Your task to perform on an android device: Open settings on Google Maps Image 0: 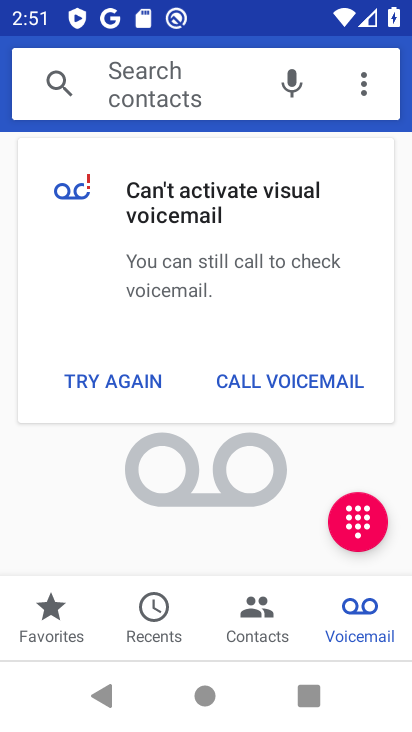
Step 0: press home button
Your task to perform on an android device: Open settings on Google Maps Image 1: 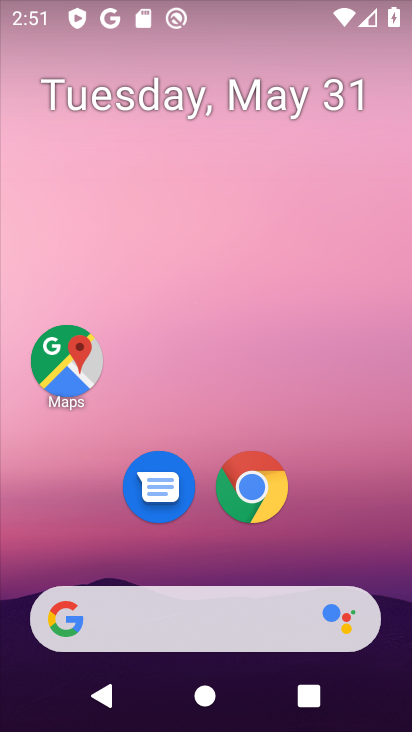
Step 1: click (78, 400)
Your task to perform on an android device: Open settings on Google Maps Image 2: 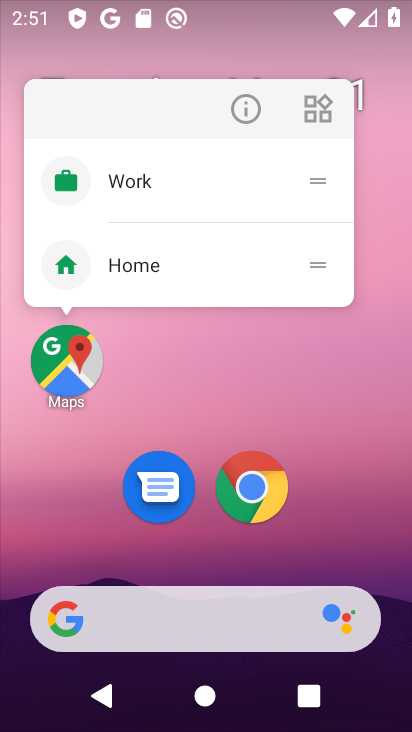
Step 2: click (75, 369)
Your task to perform on an android device: Open settings on Google Maps Image 3: 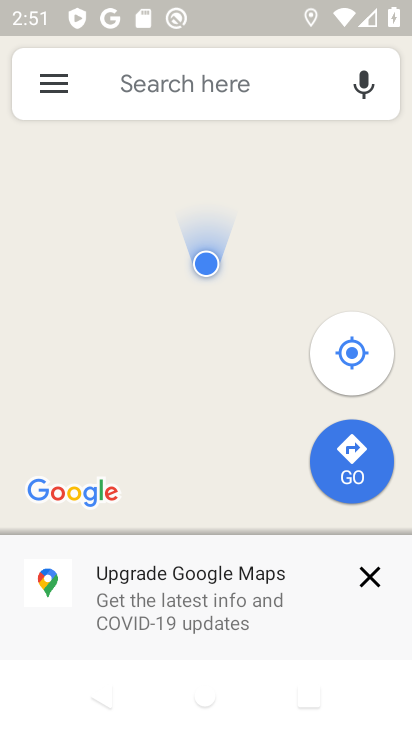
Step 3: click (54, 101)
Your task to perform on an android device: Open settings on Google Maps Image 4: 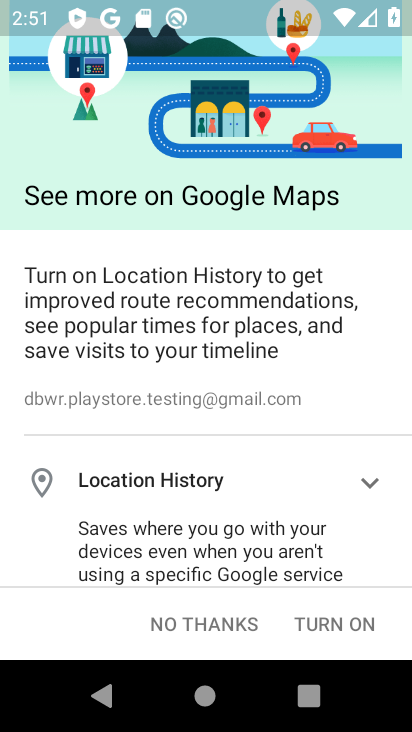
Step 4: press back button
Your task to perform on an android device: Open settings on Google Maps Image 5: 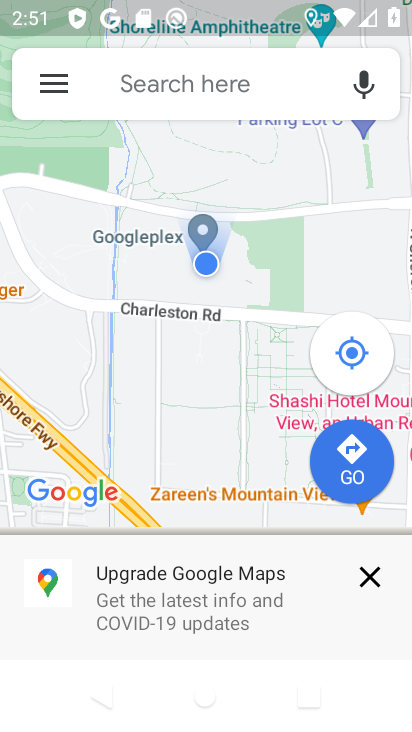
Step 5: click (363, 567)
Your task to perform on an android device: Open settings on Google Maps Image 6: 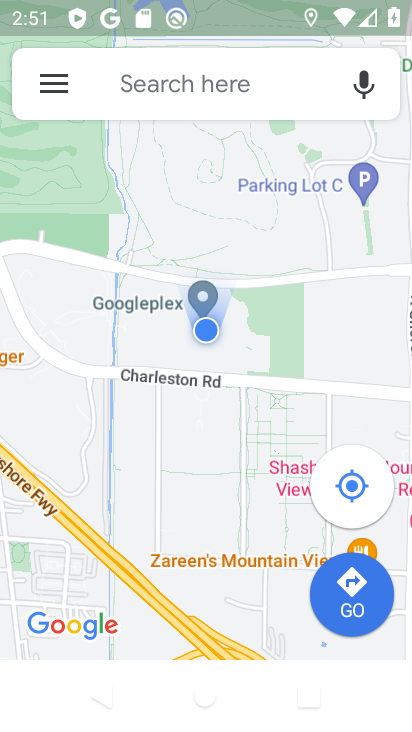
Step 6: click (70, 91)
Your task to perform on an android device: Open settings on Google Maps Image 7: 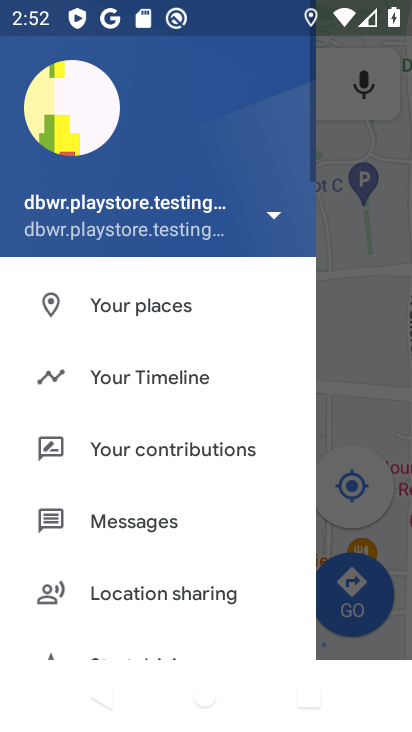
Step 7: drag from (136, 538) to (254, 143)
Your task to perform on an android device: Open settings on Google Maps Image 8: 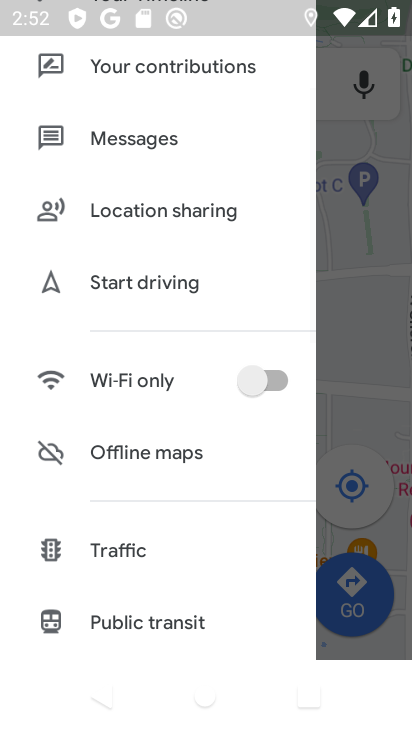
Step 8: drag from (124, 586) to (219, 247)
Your task to perform on an android device: Open settings on Google Maps Image 9: 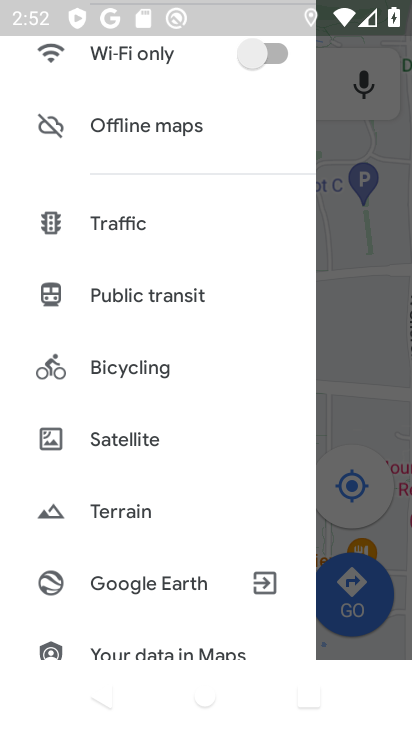
Step 9: drag from (190, 585) to (298, 128)
Your task to perform on an android device: Open settings on Google Maps Image 10: 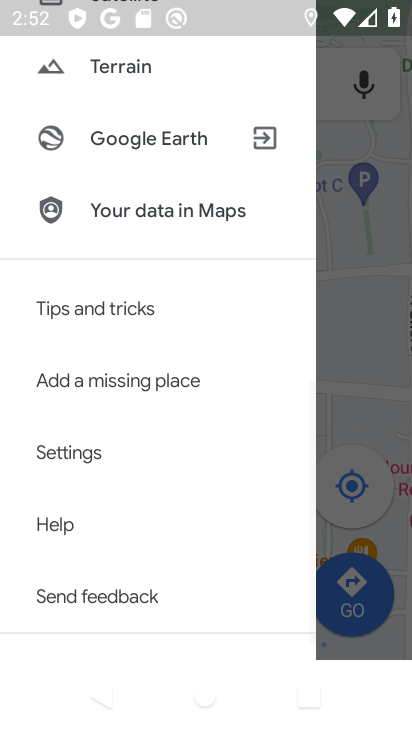
Step 10: drag from (155, 614) to (260, 228)
Your task to perform on an android device: Open settings on Google Maps Image 11: 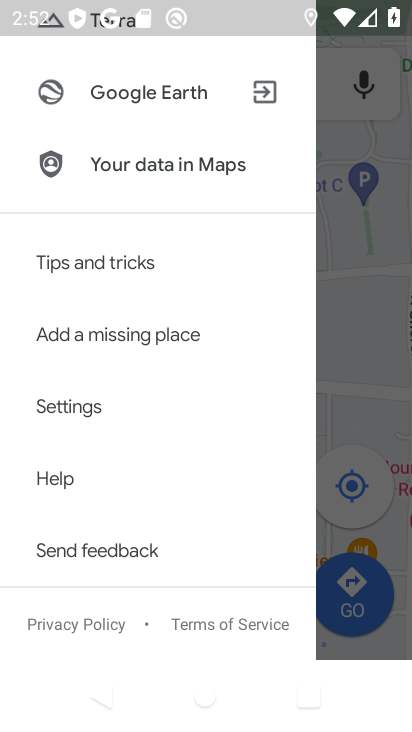
Step 11: click (138, 408)
Your task to perform on an android device: Open settings on Google Maps Image 12: 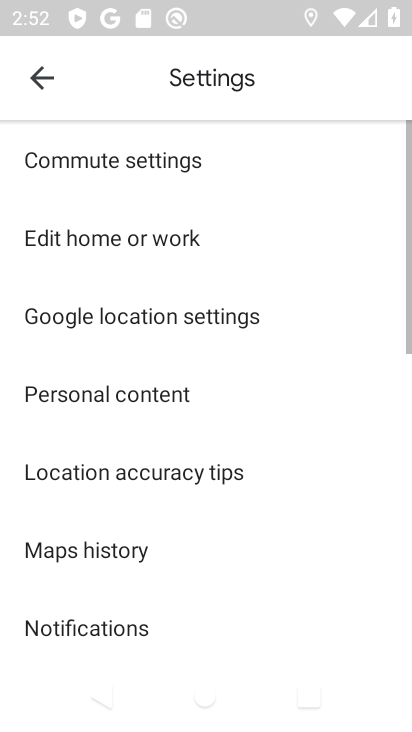
Step 12: task complete